Your task to perform on an android device: check data usage Image 0: 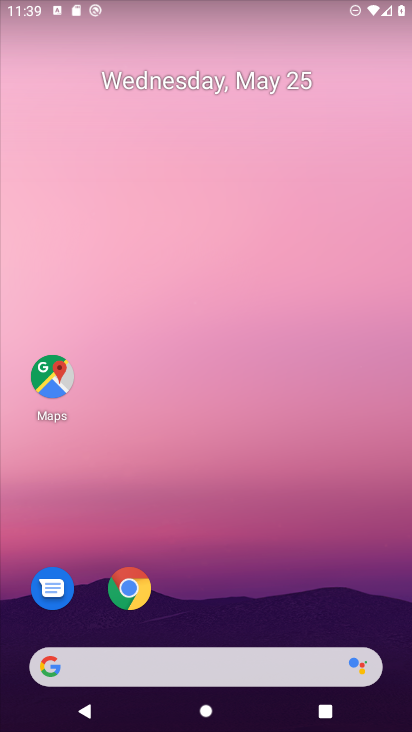
Step 0: drag from (45, 522) to (220, 91)
Your task to perform on an android device: check data usage Image 1: 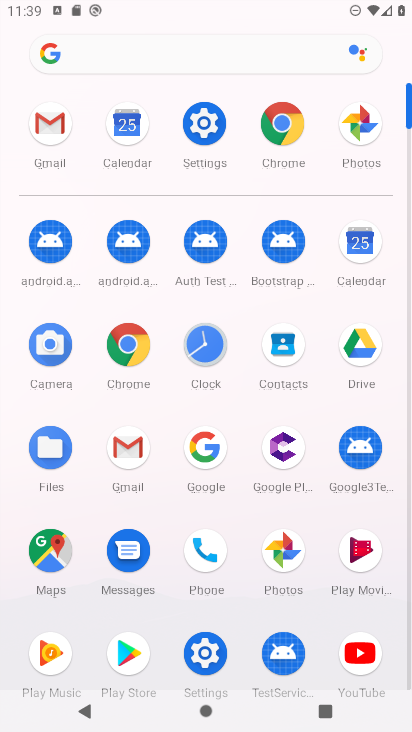
Step 1: click (194, 110)
Your task to perform on an android device: check data usage Image 2: 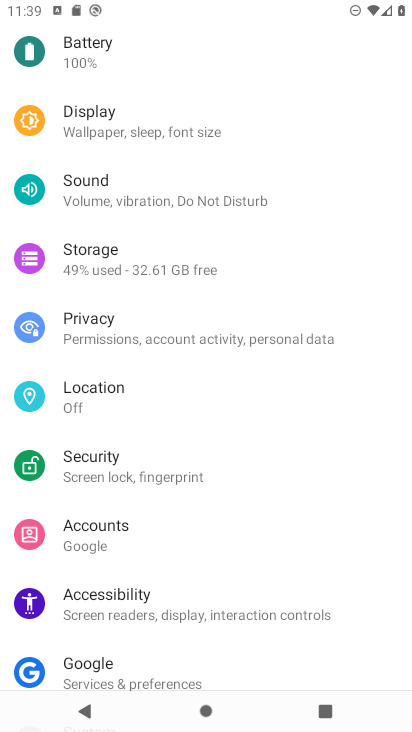
Step 2: drag from (238, 91) to (150, 497)
Your task to perform on an android device: check data usage Image 3: 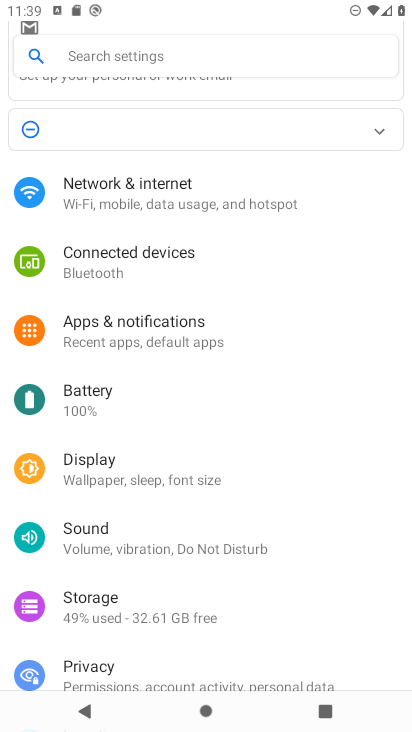
Step 3: click (228, 195)
Your task to perform on an android device: check data usage Image 4: 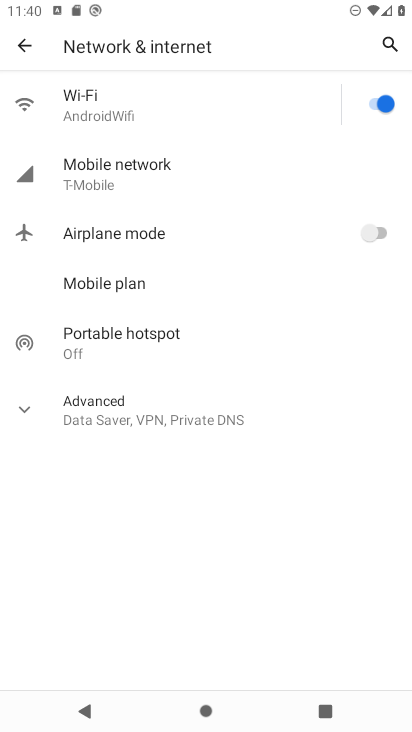
Step 4: click (161, 155)
Your task to perform on an android device: check data usage Image 5: 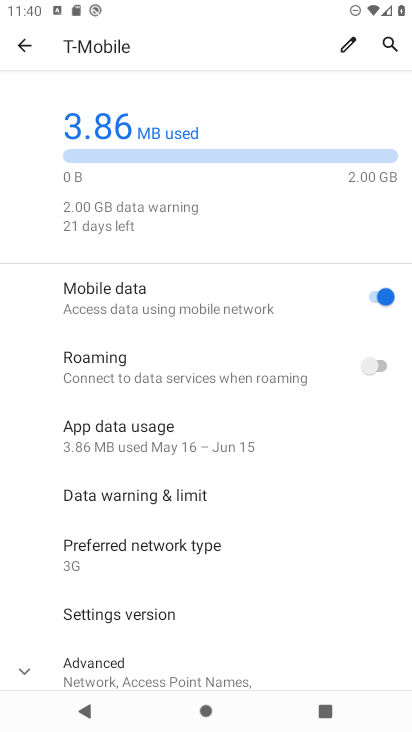
Step 5: task complete